Your task to perform on an android device: Open Google Chrome Image 0: 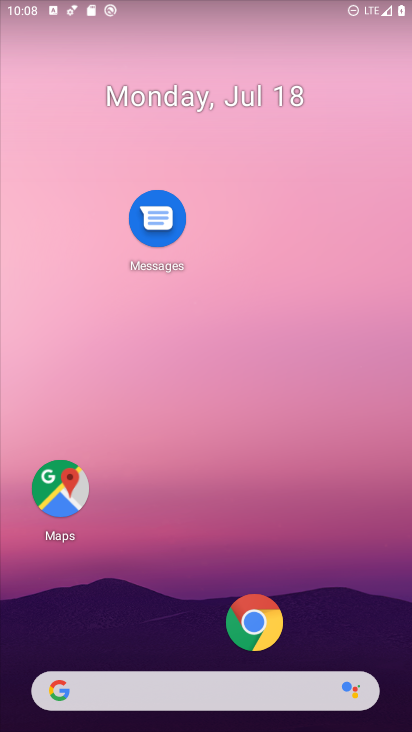
Step 0: drag from (177, 636) to (198, 279)
Your task to perform on an android device: Open Google Chrome Image 1: 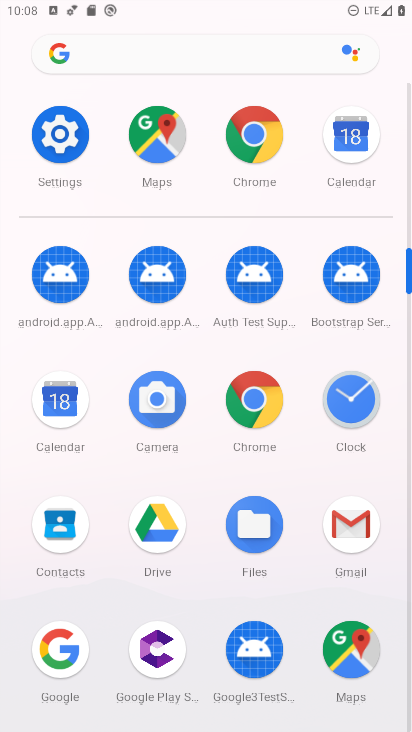
Step 1: click (256, 428)
Your task to perform on an android device: Open Google Chrome Image 2: 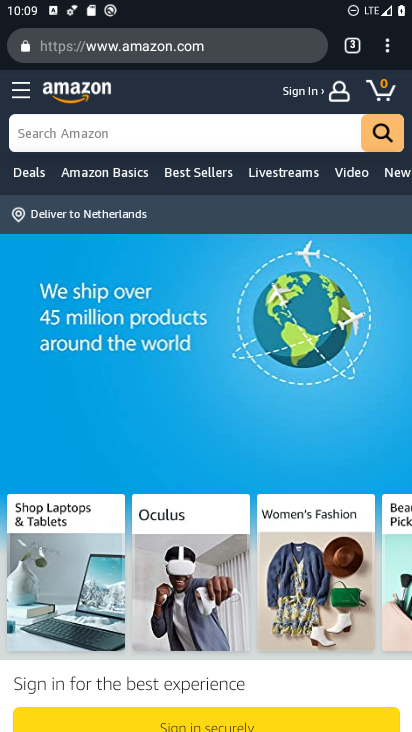
Step 2: task complete